Your task to perform on an android device: toggle notification dots Image 0: 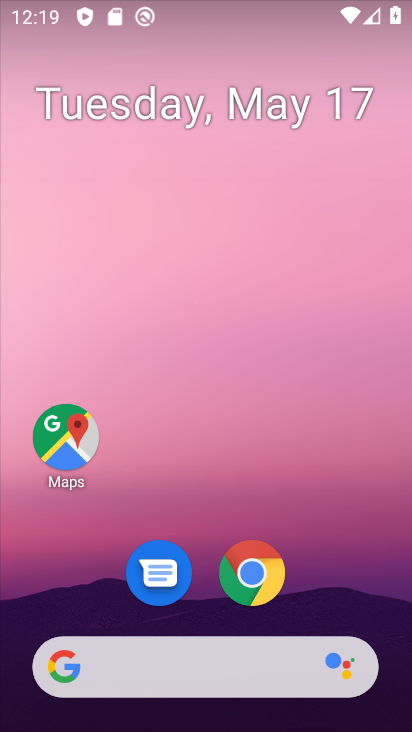
Step 0: press home button
Your task to perform on an android device: toggle notification dots Image 1: 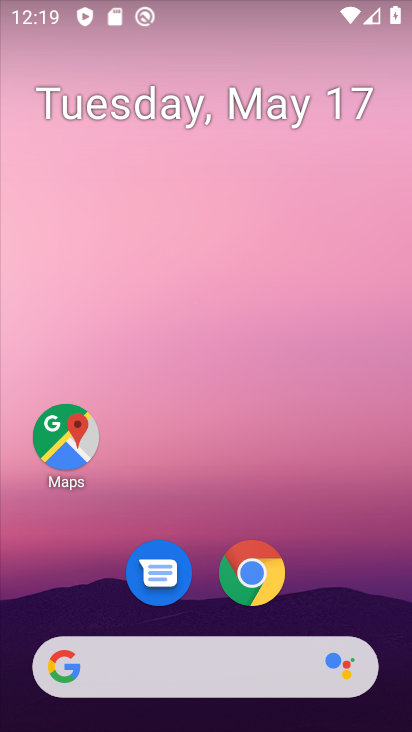
Step 1: press home button
Your task to perform on an android device: toggle notification dots Image 2: 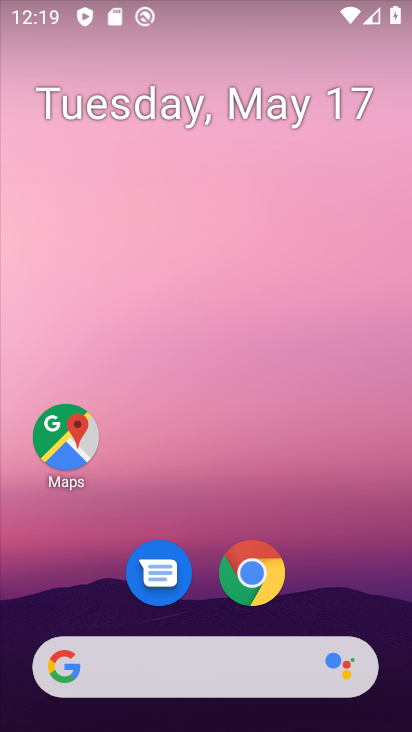
Step 2: drag from (205, 622) to (219, 72)
Your task to perform on an android device: toggle notification dots Image 3: 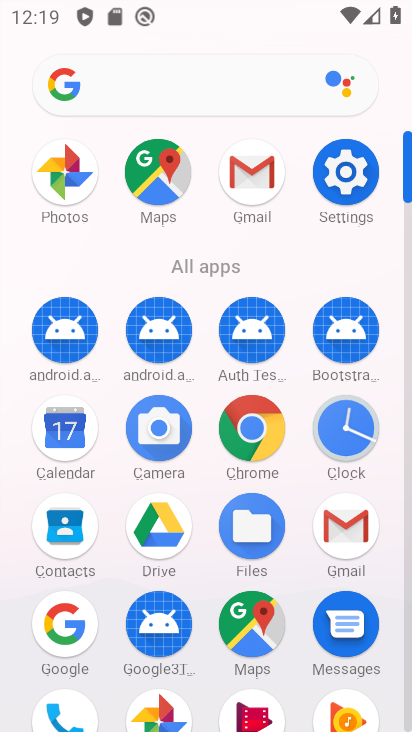
Step 3: click (343, 168)
Your task to perform on an android device: toggle notification dots Image 4: 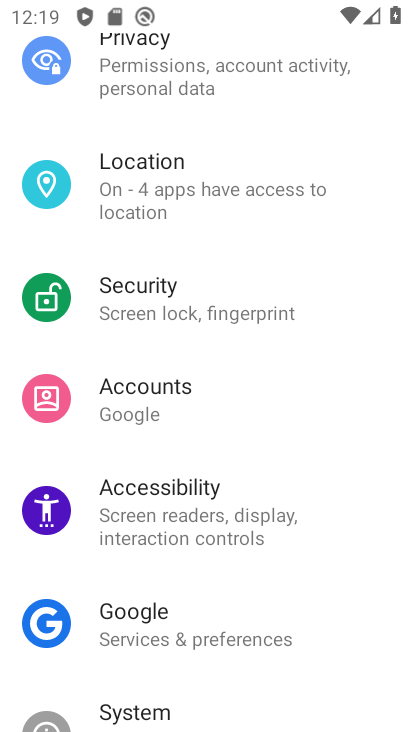
Step 4: drag from (168, 123) to (175, 666)
Your task to perform on an android device: toggle notification dots Image 5: 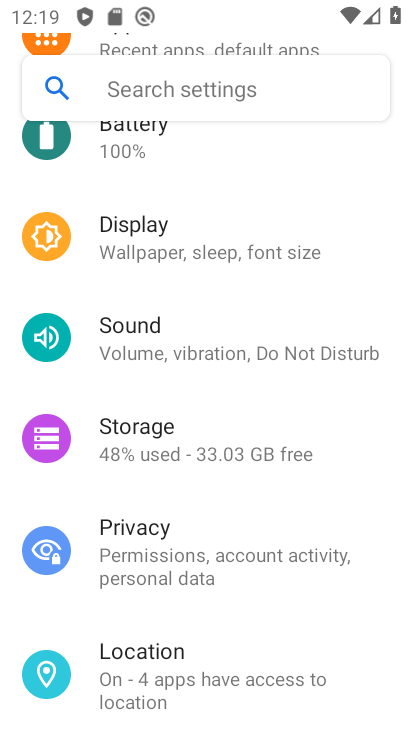
Step 5: drag from (153, 171) to (159, 696)
Your task to perform on an android device: toggle notification dots Image 6: 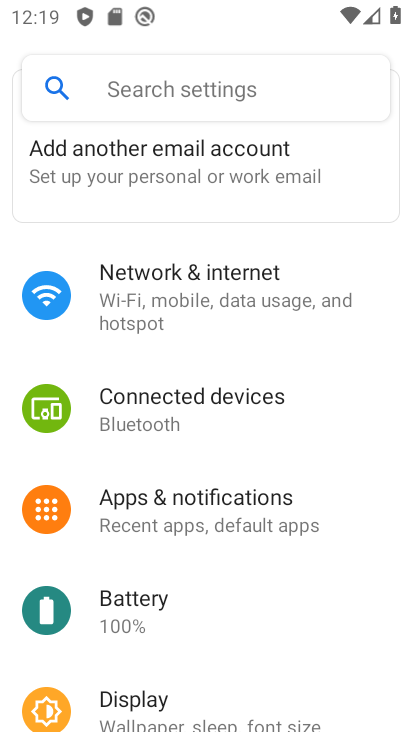
Step 6: click (208, 512)
Your task to perform on an android device: toggle notification dots Image 7: 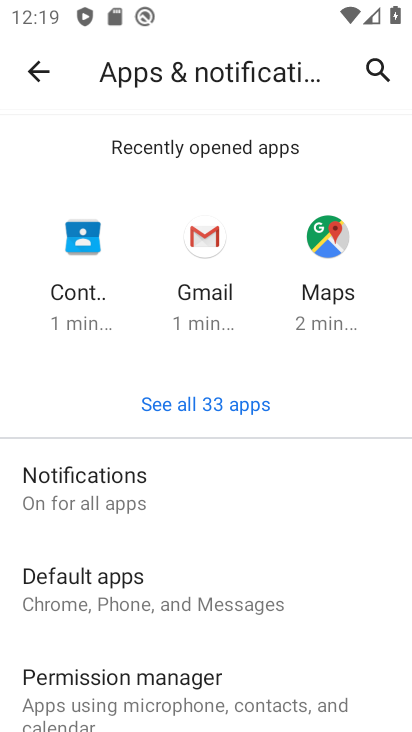
Step 7: click (149, 486)
Your task to perform on an android device: toggle notification dots Image 8: 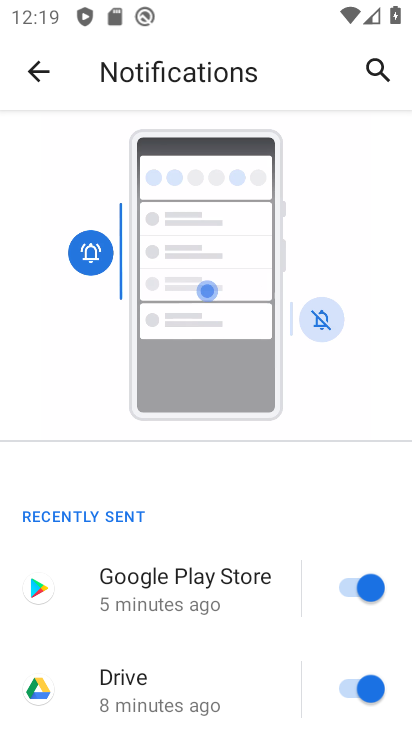
Step 8: drag from (194, 637) to (216, 352)
Your task to perform on an android device: toggle notification dots Image 9: 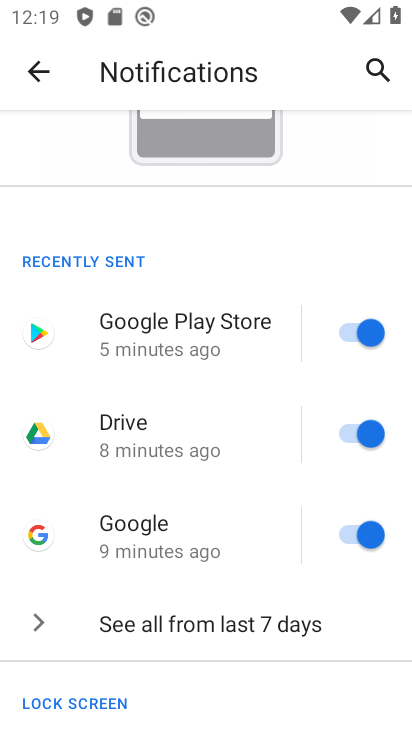
Step 9: drag from (194, 682) to (191, 278)
Your task to perform on an android device: toggle notification dots Image 10: 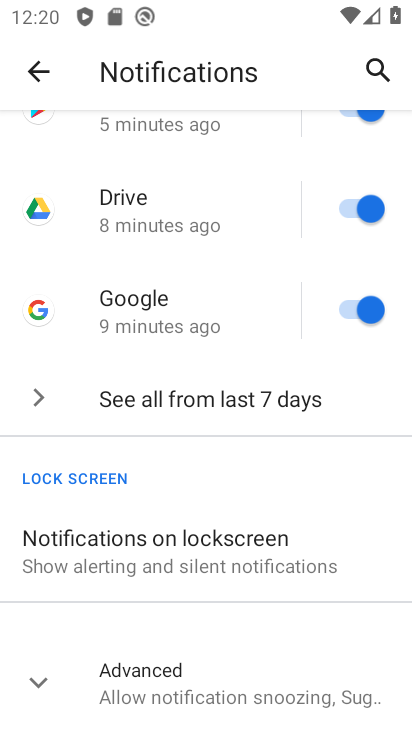
Step 10: click (41, 673)
Your task to perform on an android device: toggle notification dots Image 11: 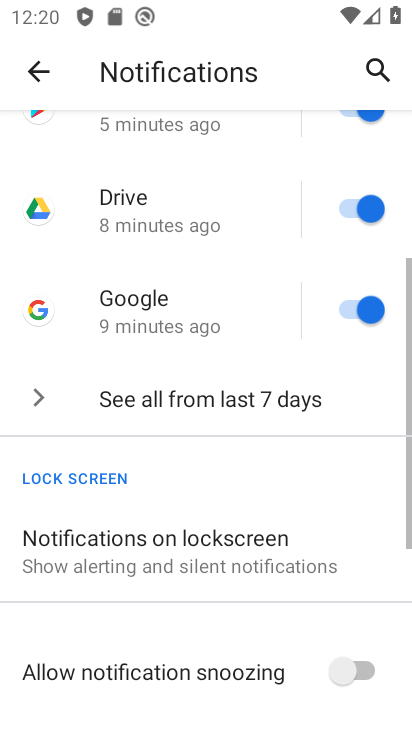
Step 11: drag from (148, 673) to (152, 206)
Your task to perform on an android device: toggle notification dots Image 12: 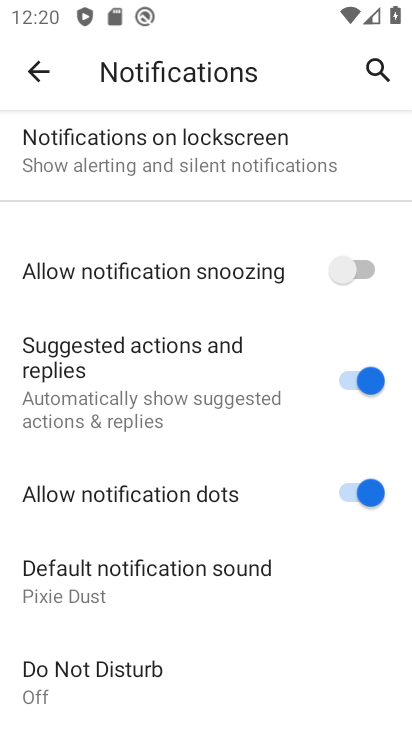
Step 12: click (356, 487)
Your task to perform on an android device: toggle notification dots Image 13: 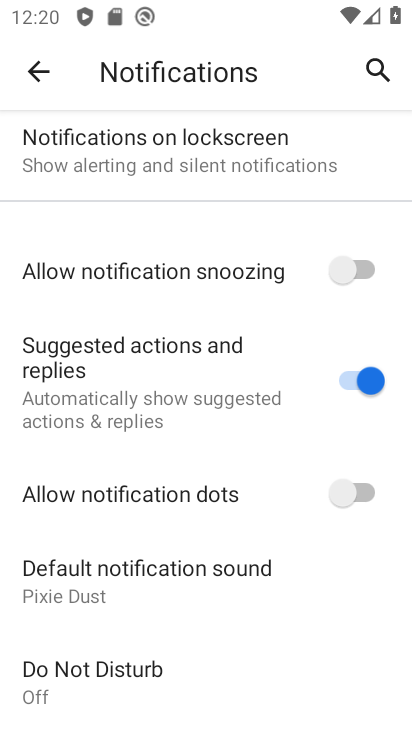
Step 13: task complete